Your task to perform on an android device: change notification settings in the gmail app Image 0: 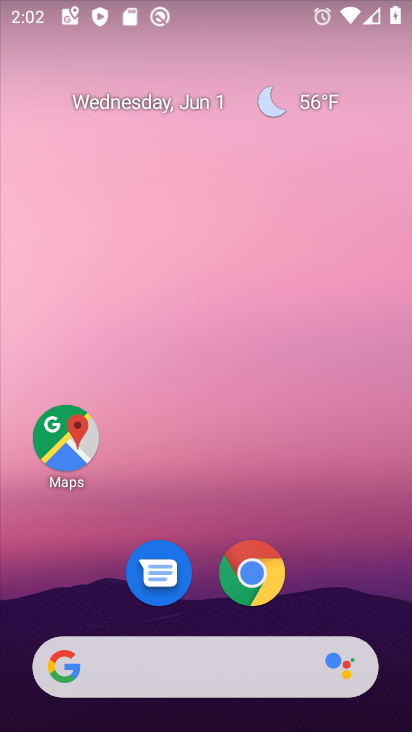
Step 0: drag from (366, 624) to (291, 108)
Your task to perform on an android device: change notification settings in the gmail app Image 1: 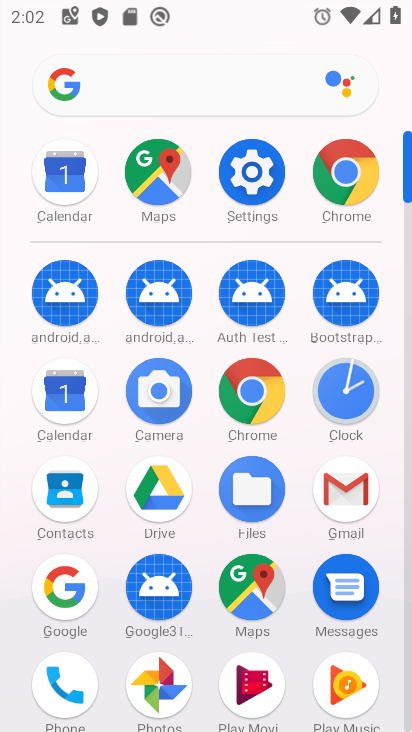
Step 1: click (365, 496)
Your task to perform on an android device: change notification settings in the gmail app Image 2: 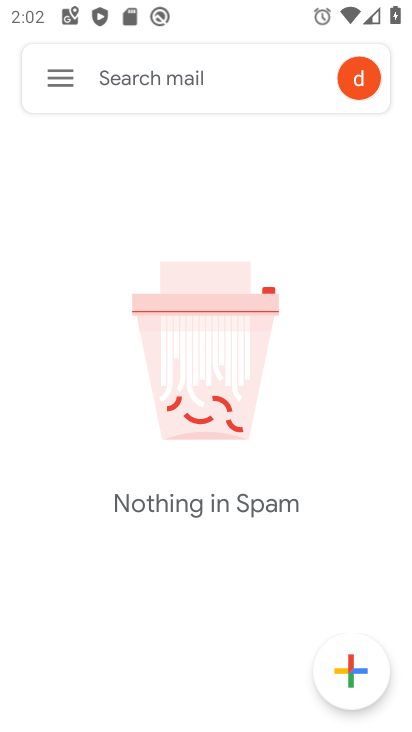
Step 2: click (46, 84)
Your task to perform on an android device: change notification settings in the gmail app Image 3: 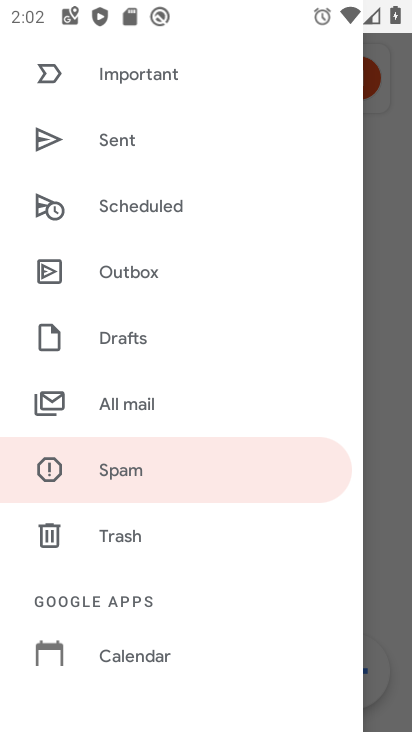
Step 3: drag from (202, 554) to (160, 217)
Your task to perform on an android device: change notification settings in the gmail app Image 4: 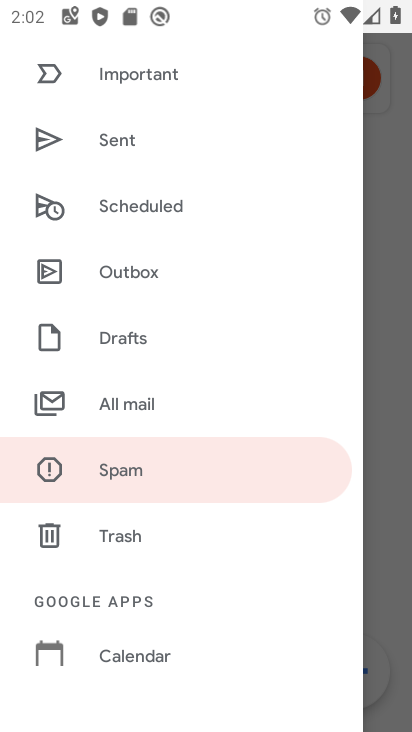
Step 4: drag from (158, 632) to (179, 339)
Your task to perform on an android device: change notification settings in the gmail app Image 5: 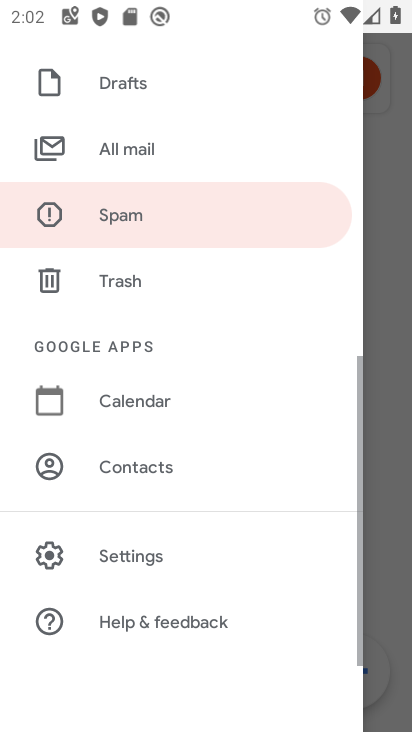
Step 5: click (152, 568)
Your task to perform on an android device: change notification settings in the gmail app Image 6: 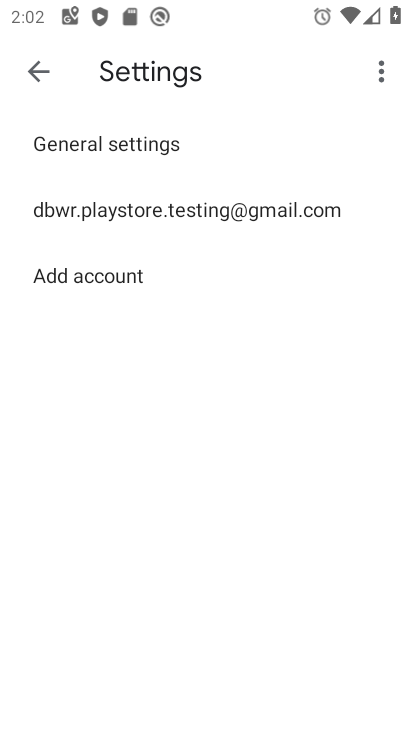
Step 6: click (127, 204)
Your task to perform on an android device: change notification settings in the gmail app Image 7: 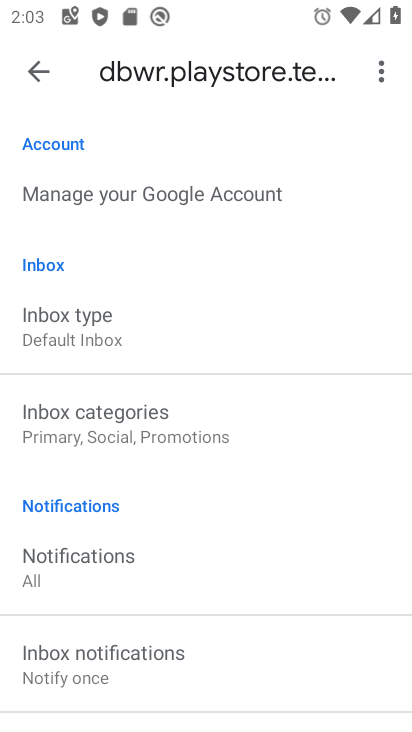
Step 7: click (116, 582)
Your task to perform on an android device: change notification settings in the gmail app Image 8: 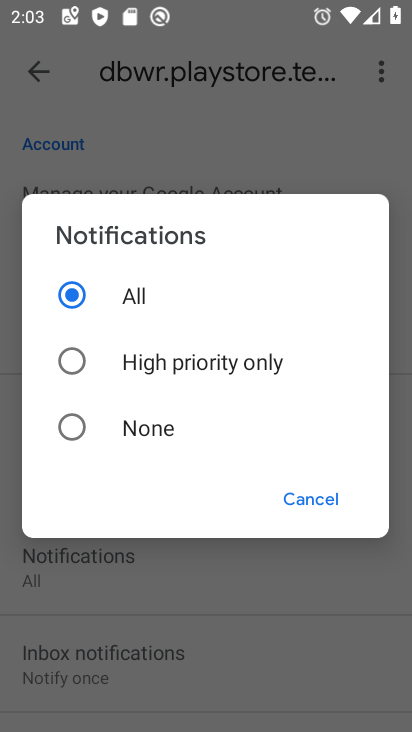
Step 8: click (75, 373)
Your task to perform on an android device: change notification settings in the gmail app Image 9: 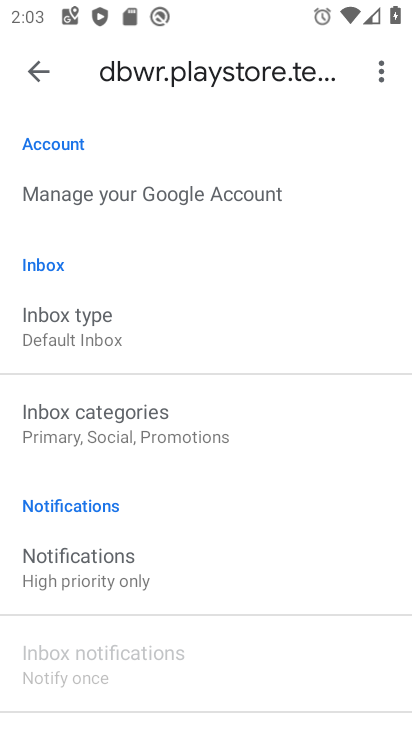
Step 9: task complete